Your task to perform on an android device: Clear the shopping cart on bestbuy.com. Add "usb-c" to the cart on bestbuy.com, then select checkout. Image 0: 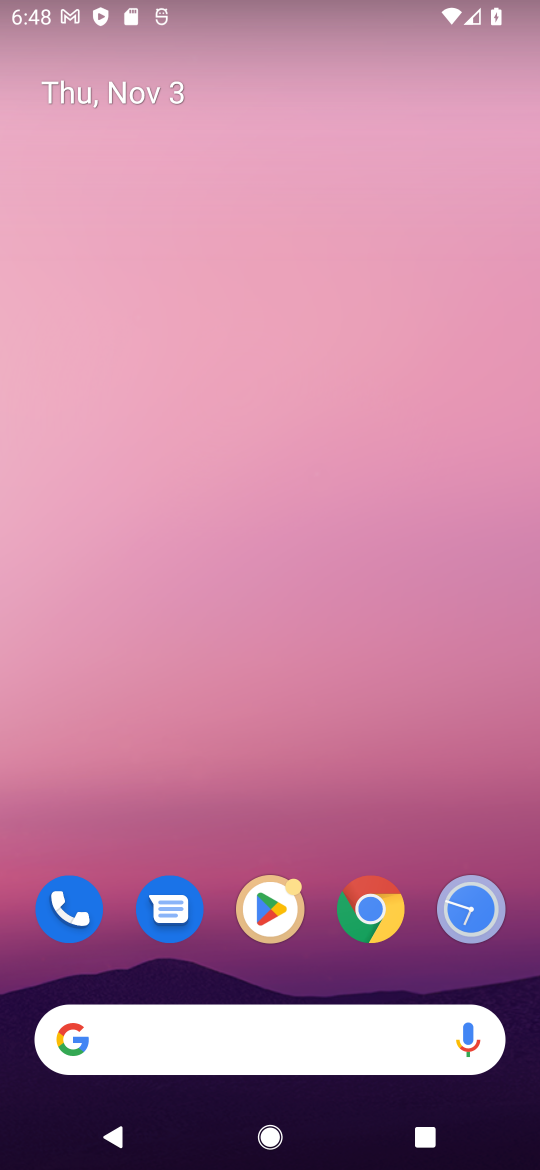
Step 0: drag from (409, 991) to (410, 37)
Your task to perform on an android device: Clear the shopping cart on bestbuy.com. Add "usb-c" to the cart on bestbuy.com, then select checkout. Image 1: 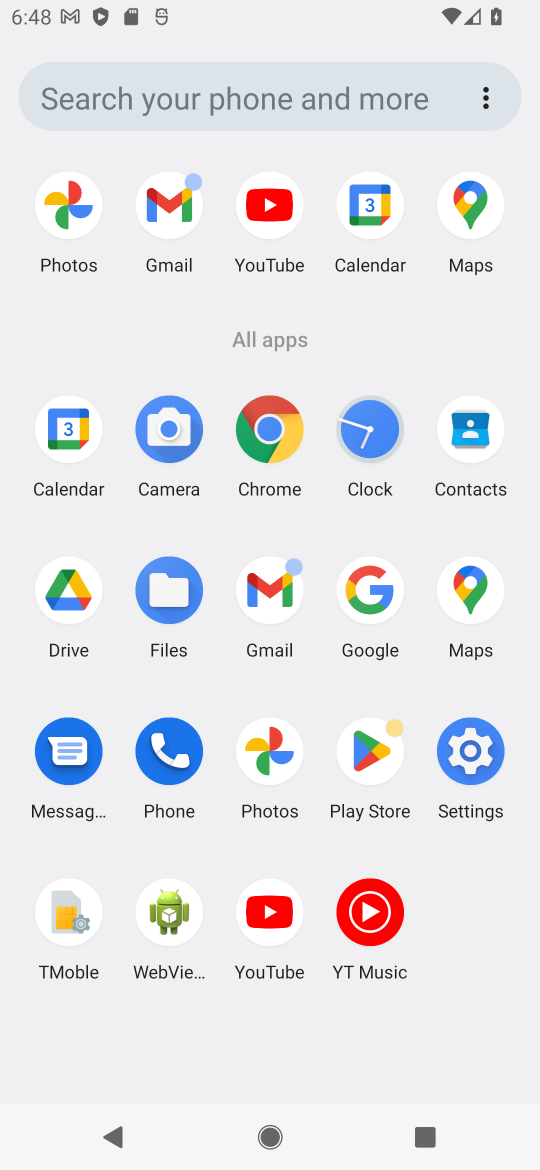
Step 1: click (380, 585)
Your task to perform on an android device: Clear the shopping cart on bestbuy.com. Add "usb-c" to the cart on bestbuy.com, then select checkout. Image 2: 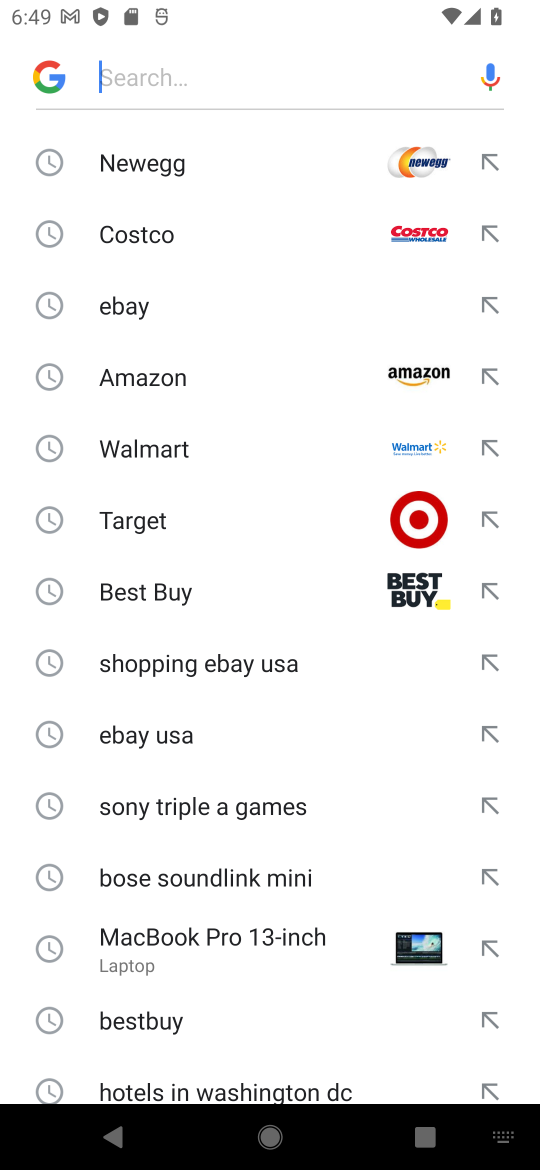
Step 2: click (284, 72)
Your task to perform on an android device: Clear the shopping cart on bestbuy.com. Add "usb-c" to the cart on bestbuy.com, then select checkout. Image 3: 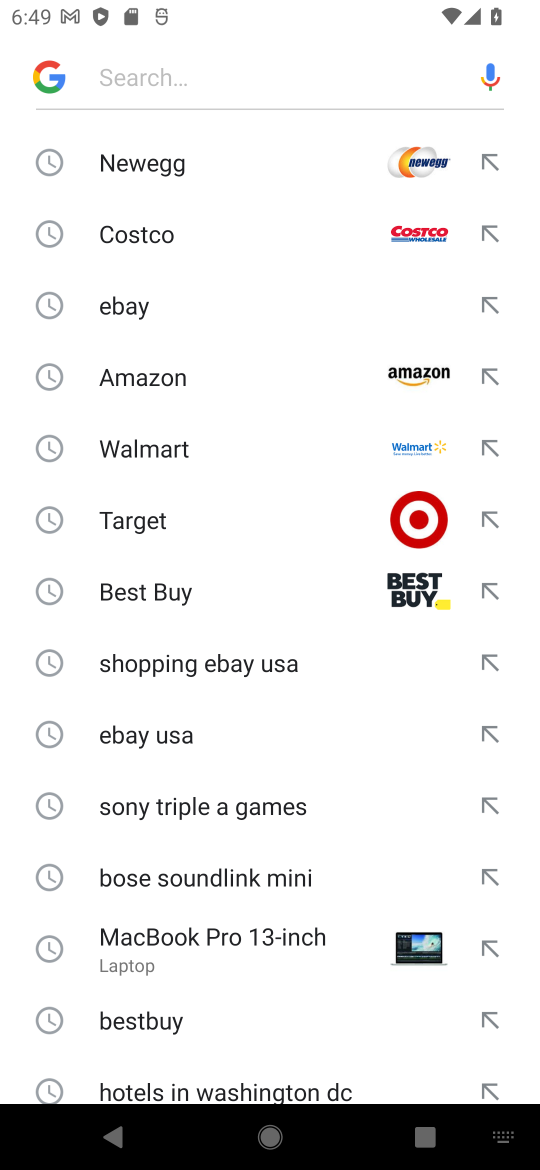
Step 3: type "bestbuy "
Your task to perform on an android device: Clear the shopping cart on bestbuy.com. Add "usb-c" to the cart on bestbuy.com, then select checkout. Image 4: 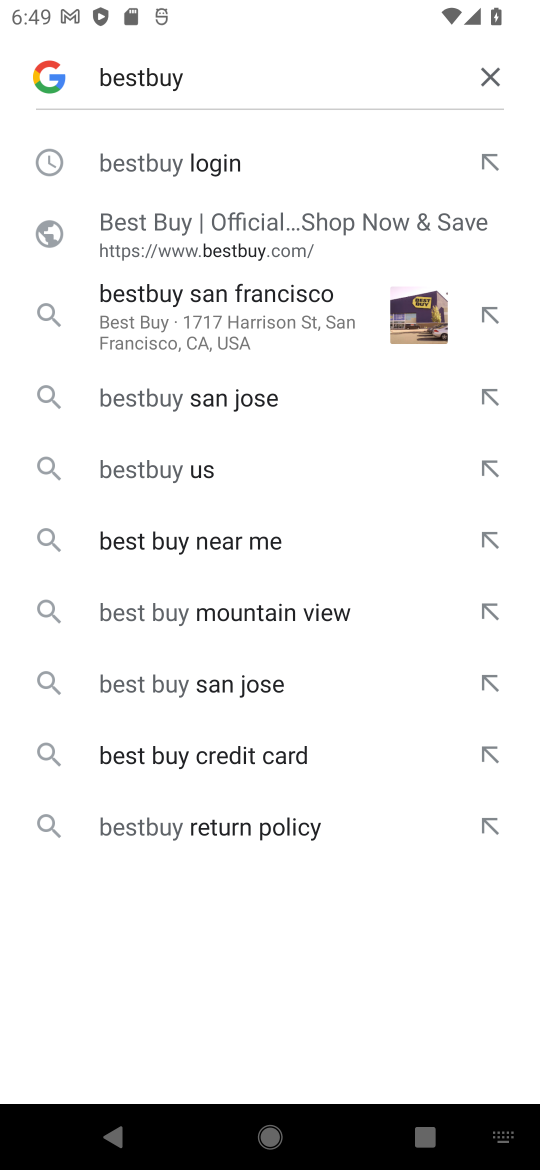
Step 4: click (176, 458)
Your task to perform on an android device: Clear the shopping cart on bestbuy.com. Add "usb-c" to the cart on bestbuy.com, then select checkout. Image 5: 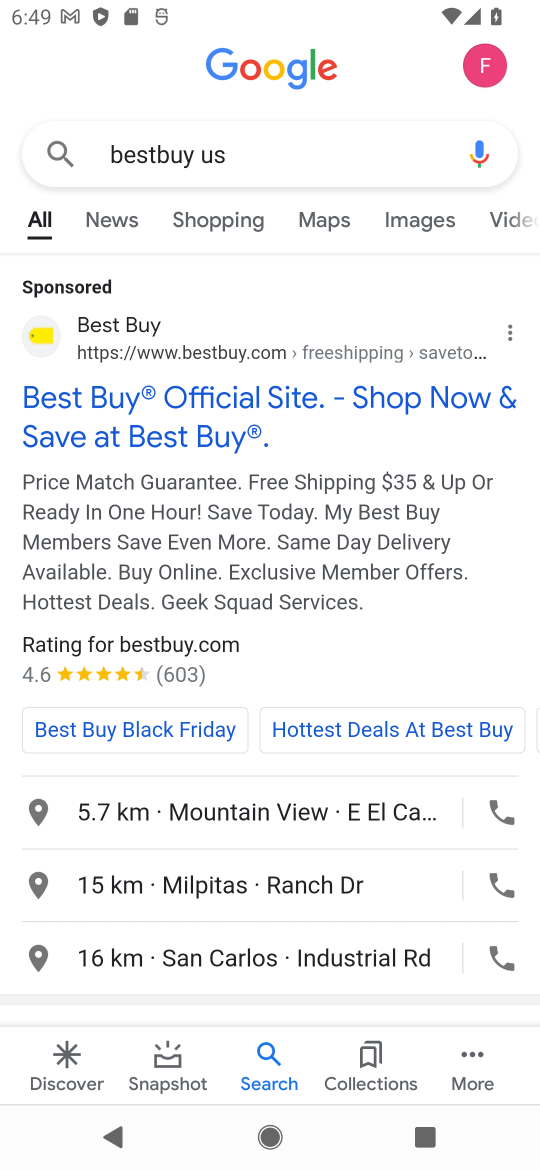
Step 5: click (42, 334)
Your task to perform on an android device: Clear the shopping cart on bestbuy.com. Add "usb-c" to the cart on bestbuy.com, then select checkout. Image 6: 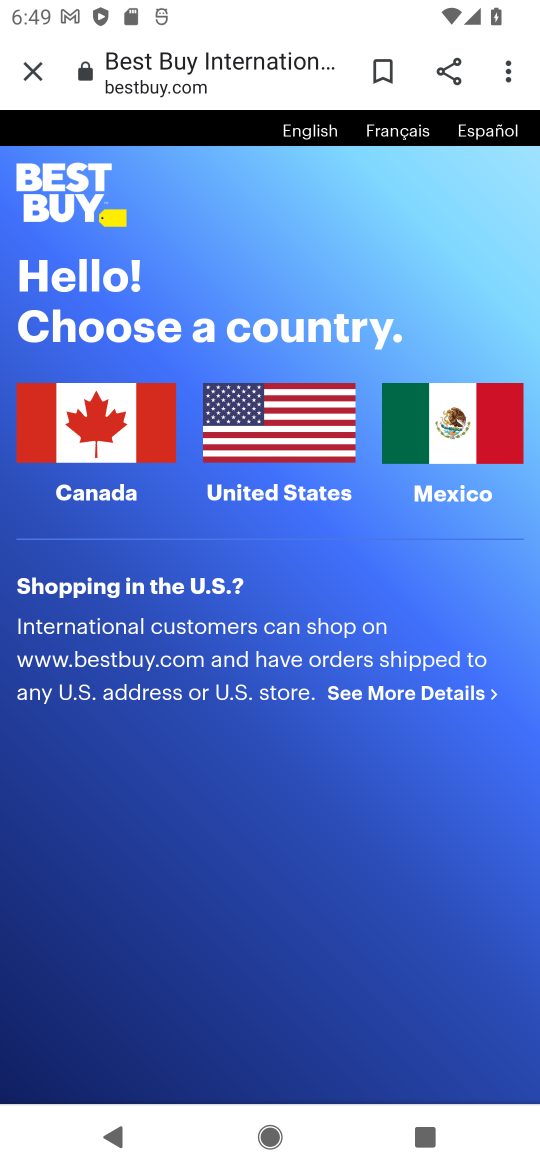
Step 6: click (255, 400)
Your task to perform on an android device: Clear the shopping cart on bestbuy.com. Add "usb-c" to the cart on bestbuy.com, then select checkout. Image 7: 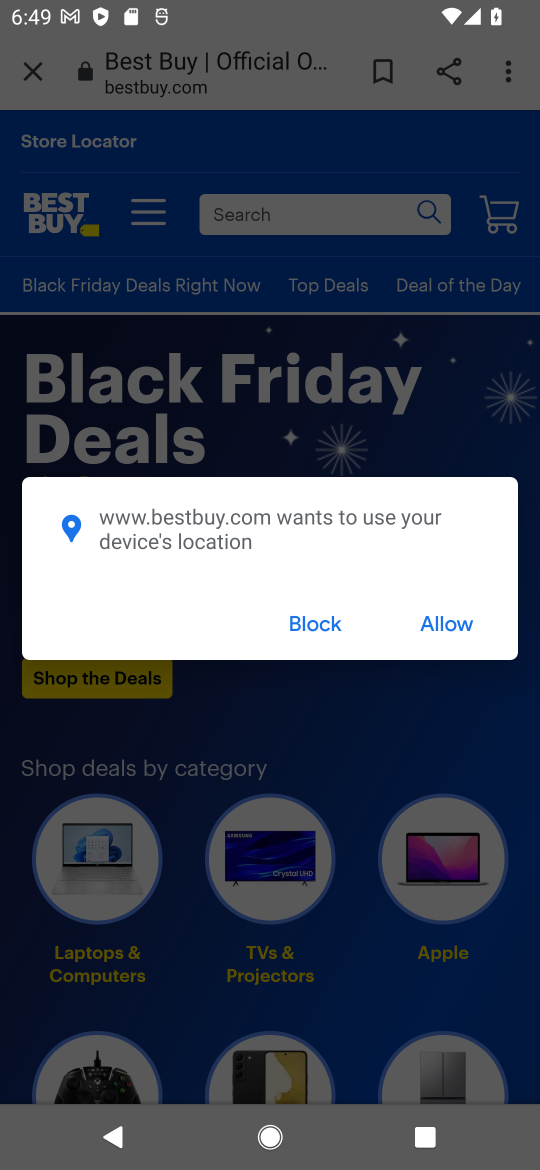
Step 7: click (443, 632)
Your task to perform on an android device: Clear the shopping cart on bestbuy.com. Add "usb-c" to the cart on bestbuy.com, then select checkout. Image 8: 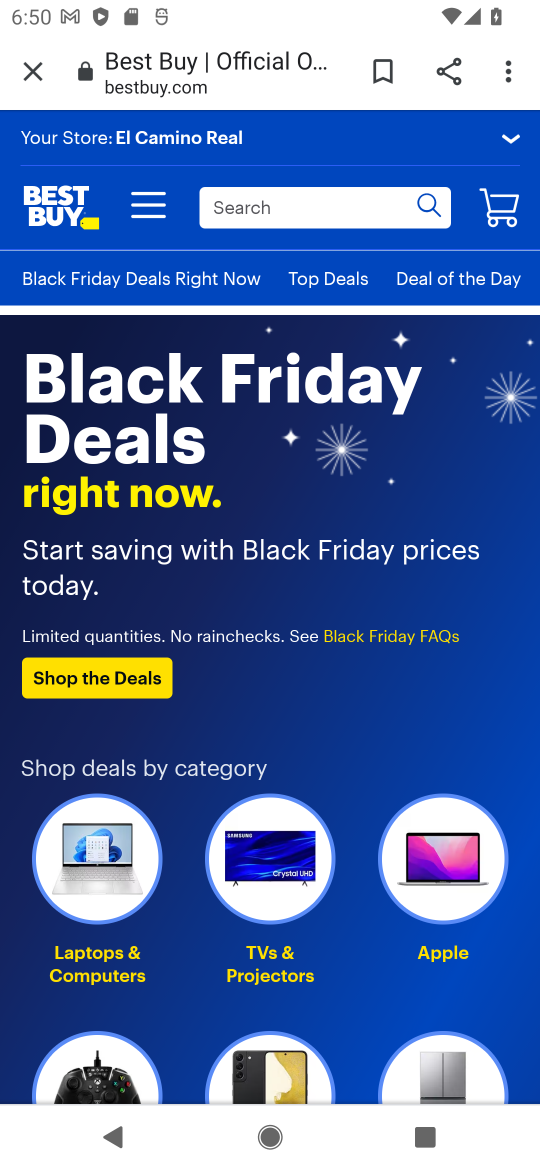
Step 8: click (300, 204)
Your task to perform on an android device: Clear the shopping cart on bestbuy.com. Add "usb-c" to the cart on bestbuy.com, then select checkout. Image 9: 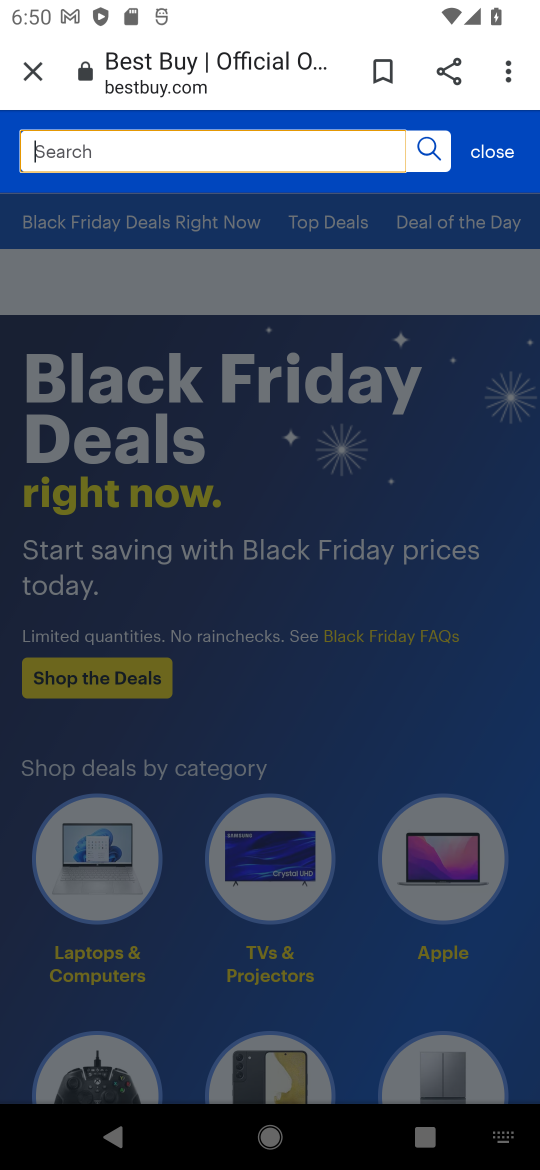
Step 9: type "usb-c "
Your task to perform on an android device: Clear the shopping cart on bestbuy.com. Add "usb-c" to the cart on bestbuy.com, then select checkout. Image 10: 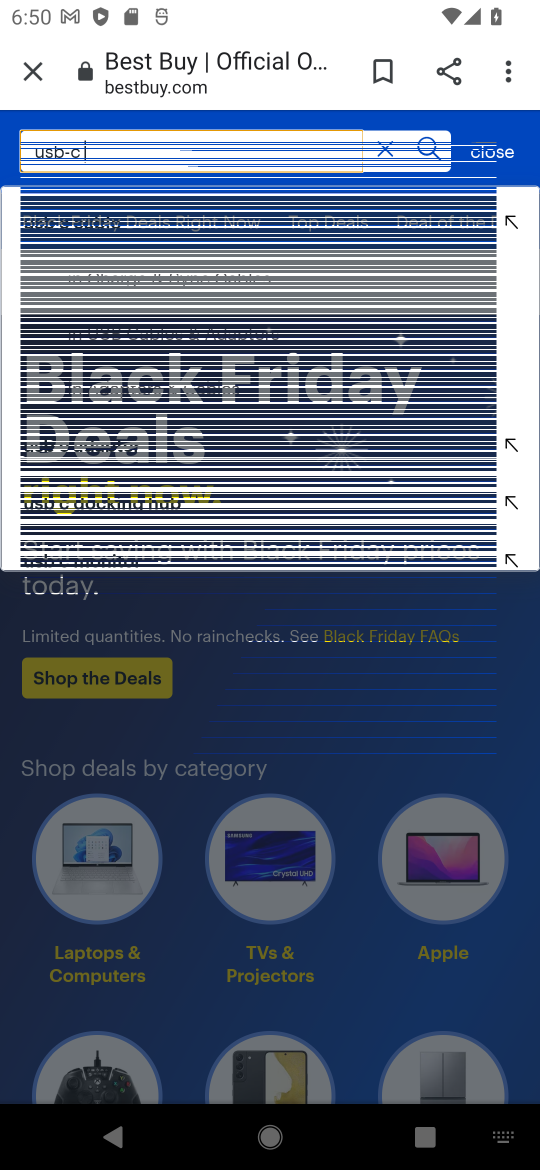
Step 10: drag from (176, 441) to (219, 214)
Your task to perform on an android device: Clear the shopping cart on bestbuy.com. Add "usb-c" to the cart on bestbuy.com, then select checkout. Image 11: 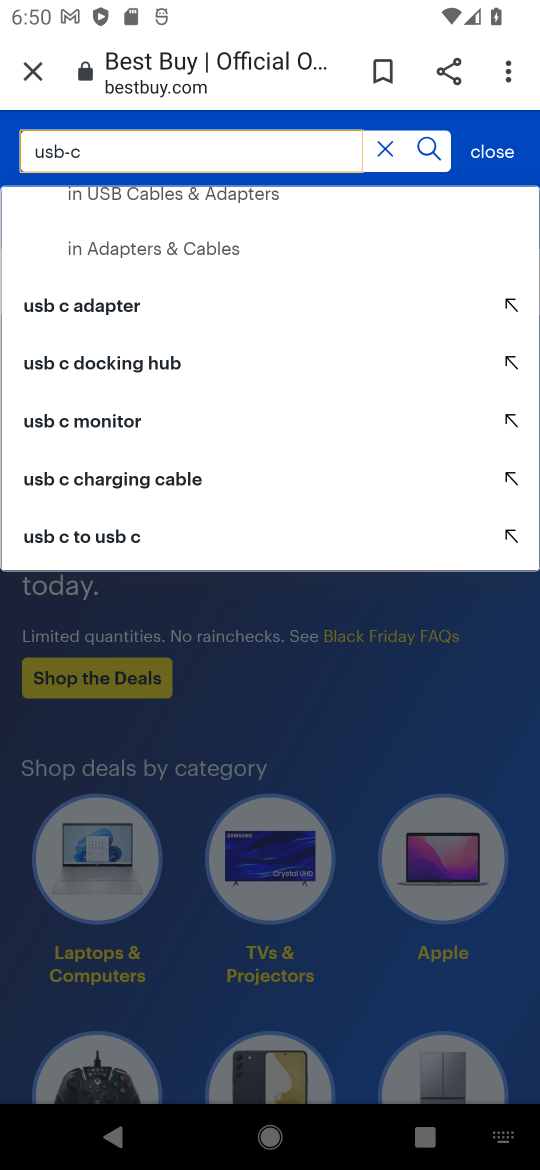
Step 11: click (115, 537)
Your task to perform on an android device: Clear the shopping cart on bestbuy.com. Add "usb-c" to the cart on bestbuy.com, then select checkout. Image 12: 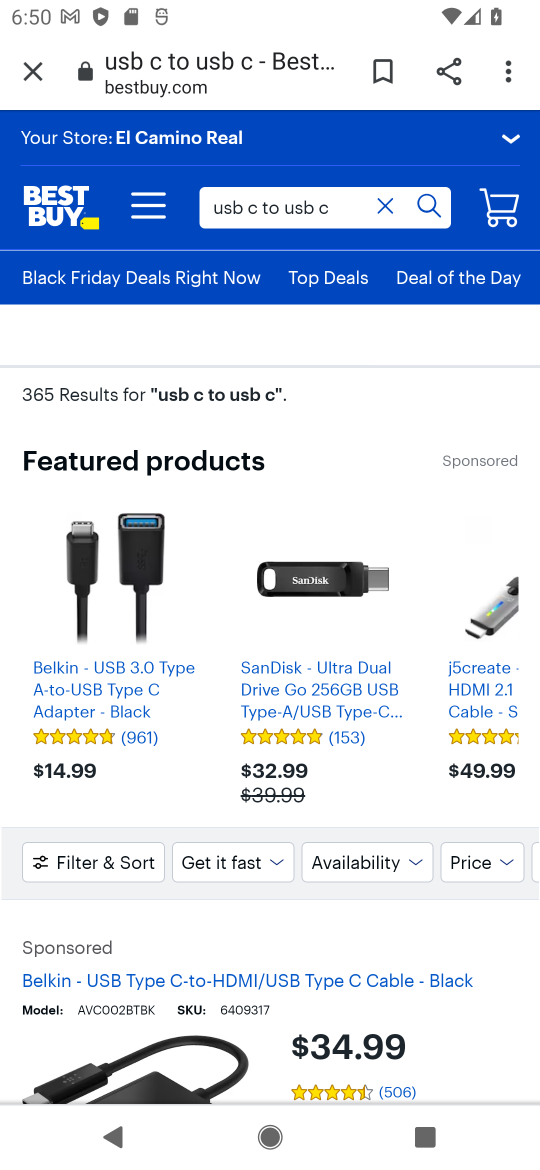
Step 12: click (84, 597)
Your task to perform on an android device: Clear the shopping cart on bestbuy.com. Add "usb-c" to the cart on bestbuy.com, then select checkout. Image 13: 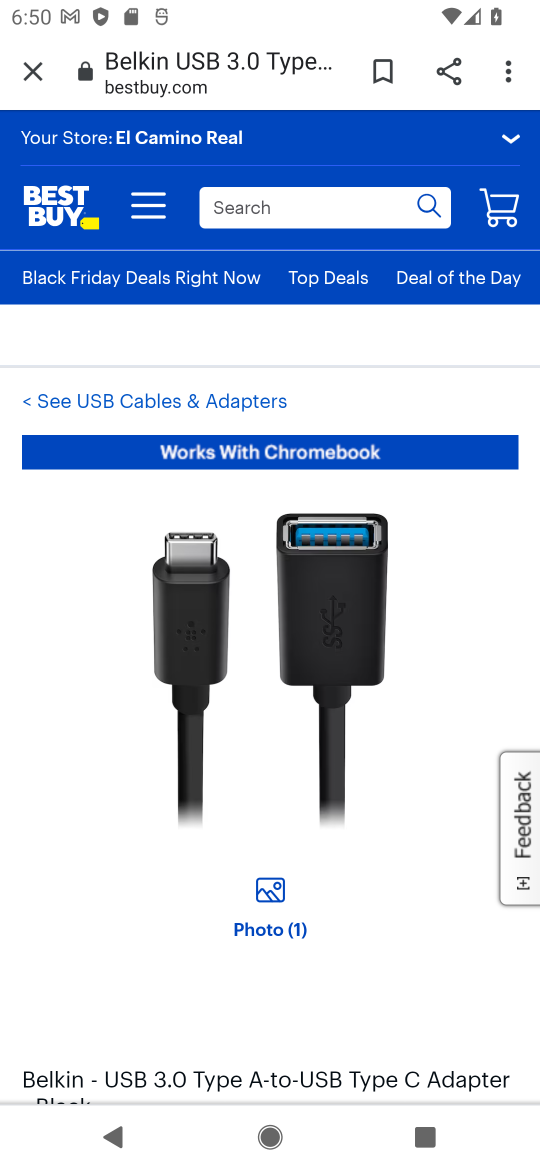
Step 13: drag from (253, 980) to (256, 315)
Your task to perform on an android device: Clear the shopping cart on bestbuy.com. Add "usb-c" to the cart on bestbuy.com, then select checkout. Image 14: 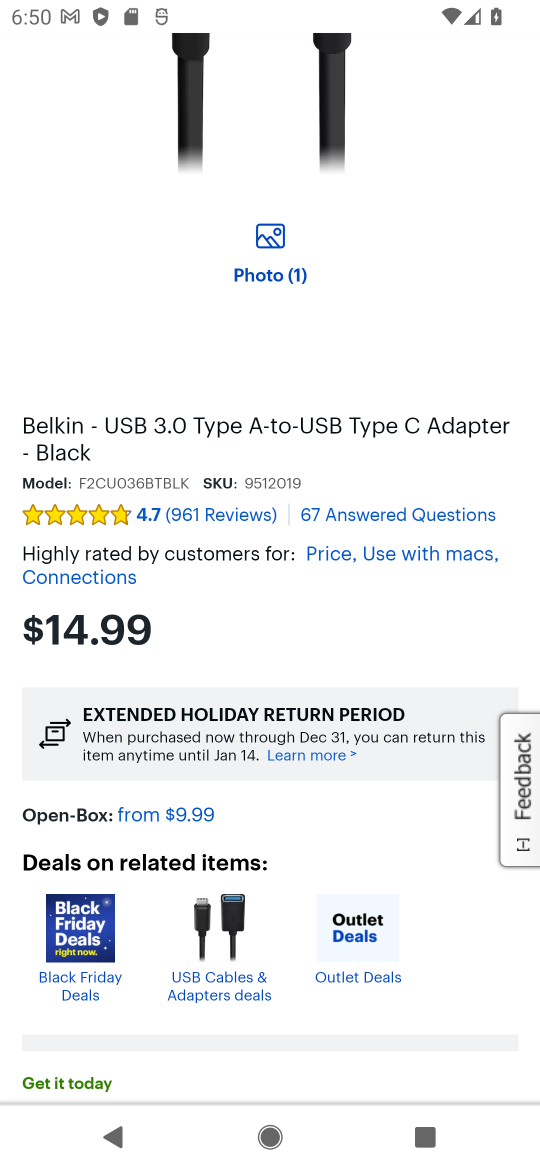
Step 14: drag from (326, 217) to (301, 381)
Your task to perform on an android device: Clear the shopping cart on bestbuy.com. Add "usb-c" to the cart on bestbuy.com, then select checkout. Image 15: 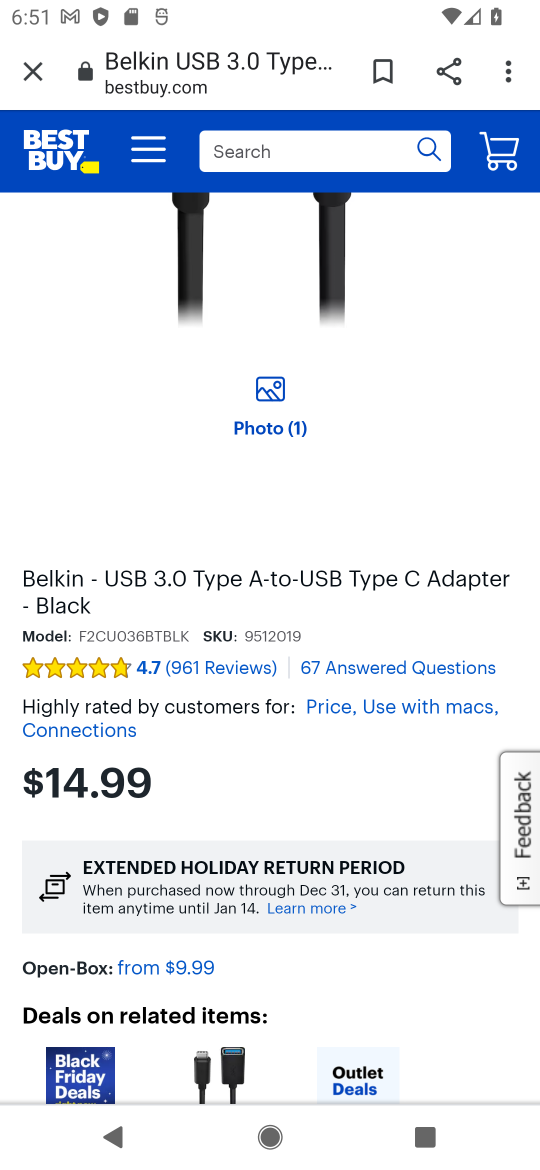
Step 15: click (323, 143)
Your task to perform on an android device: Clear the shopping cart on bestbuy.com. Add "usb-c" to the cart on bestbuy.com, then select checkout. Image 16: 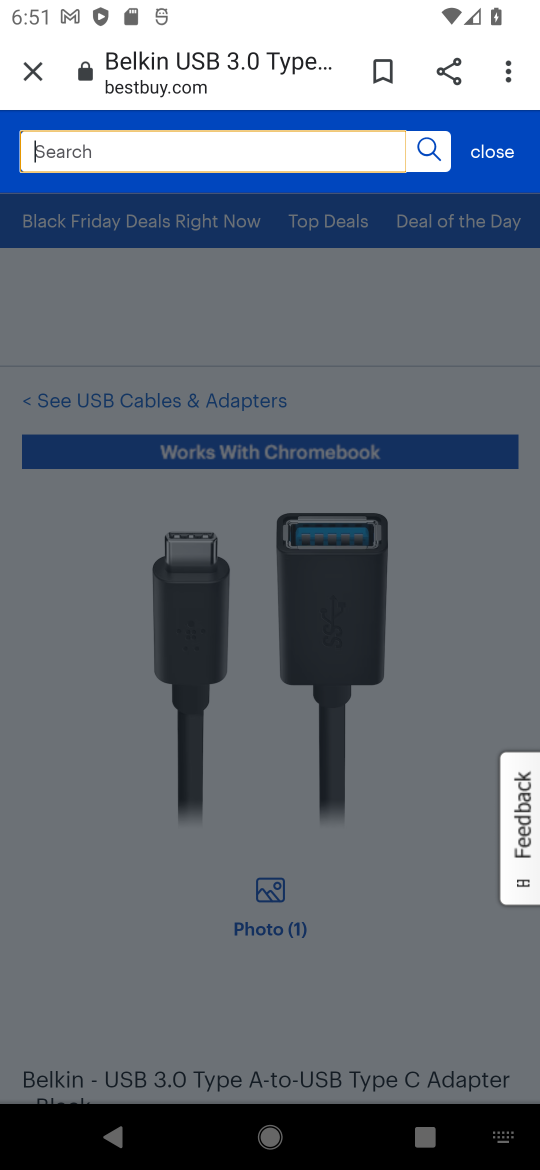
Step 16: click (224, 140)
Your task to perform on an android device: Clear the shopping cart on bestbuy.com. Add "usb-c" to the cart on bestbuy.com, then select checkout. Image 17: 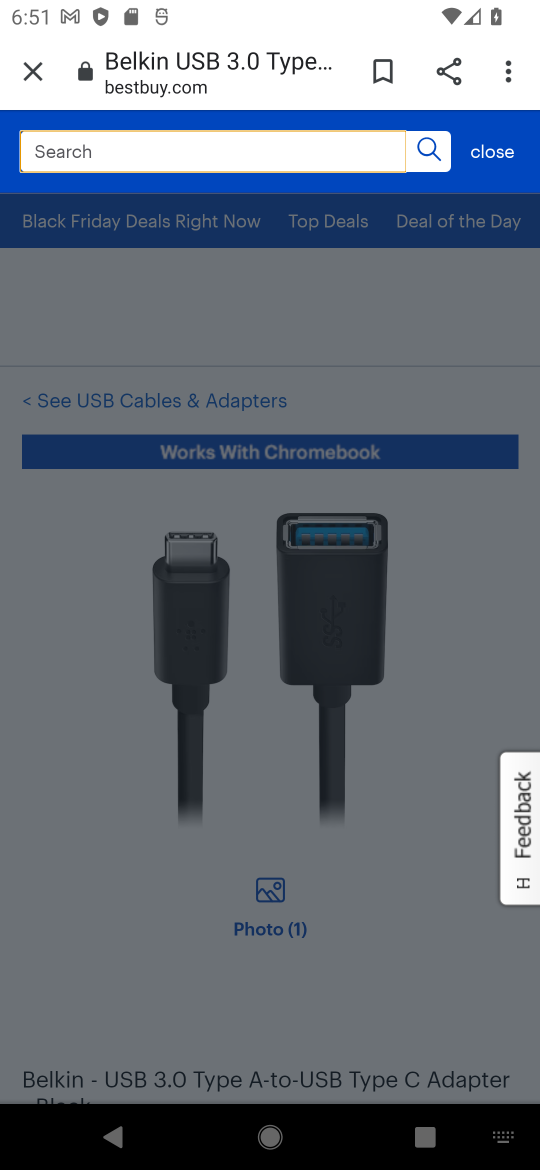
Step 17: type "usb-c "
Your task to perform on an android device: Clear the shopping cart on bestbuy.com. Add "usb-c" to the cart on bestbuy.com, then select checkout. Image 18: 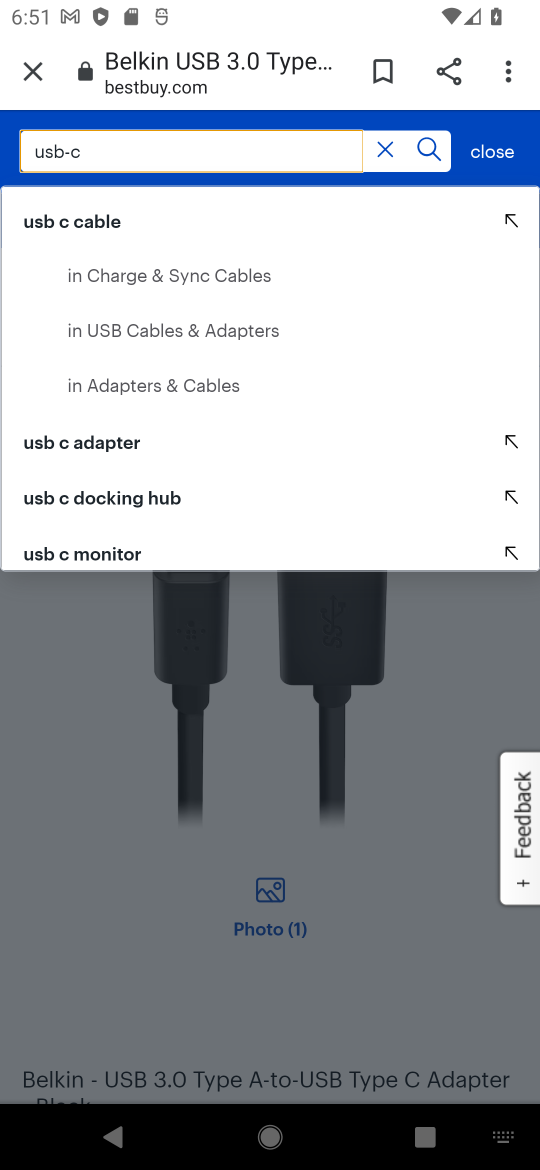
Step 18: click (140, 338)
Your task to perform on an android device: Clear the shopping cart on bestbuy.com. Add "usb-c" to the cart on bestbuy.com, then select checkout. Image 19: 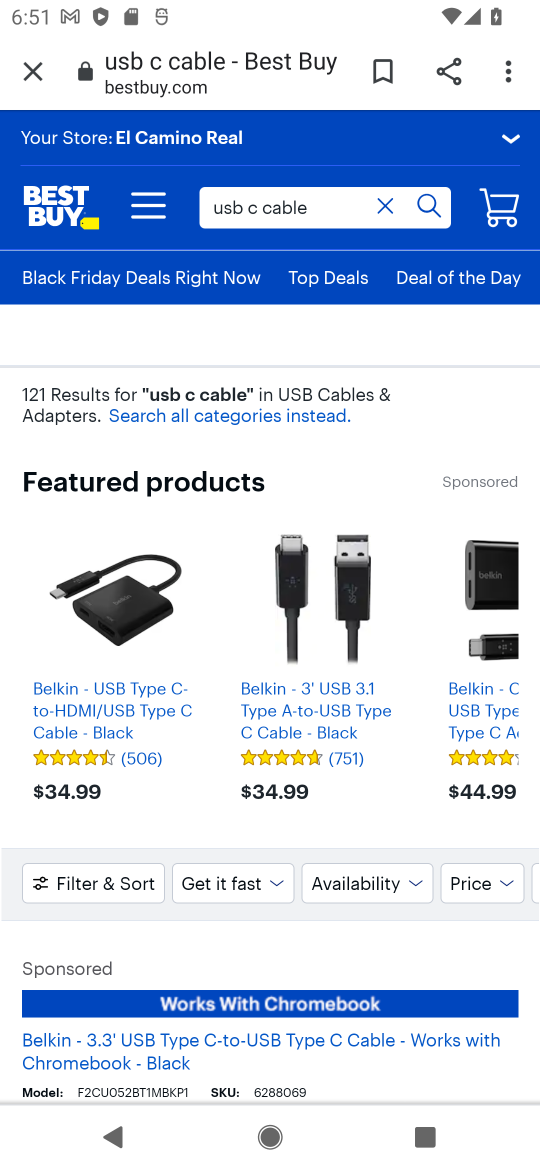
Step 19: click (143, 586)
Your task to perform on an android device: Clear the shopping cart on bestbuy.com. Add "usb-c" to the cart on bestbuy.com, then select checkout. Image 20: 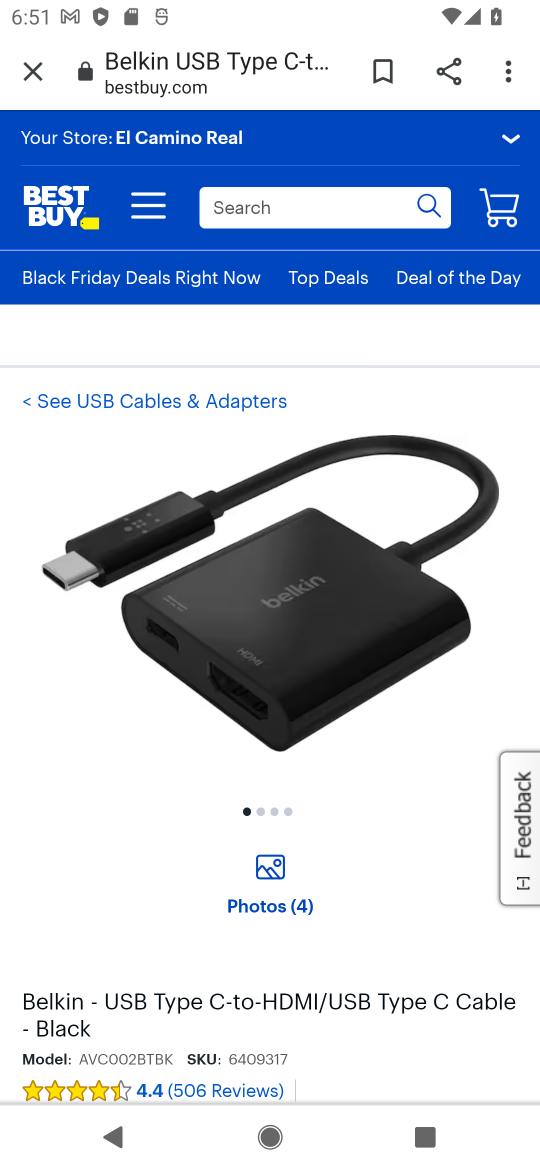
Step 20: drag from (239, 1041) to (275, 385)
Your task to perform on an android device: Clear the shopping cart on bestbuy.com. Add "usb-c" to the cart on bestbuy.com, then select checkout. Image 21: 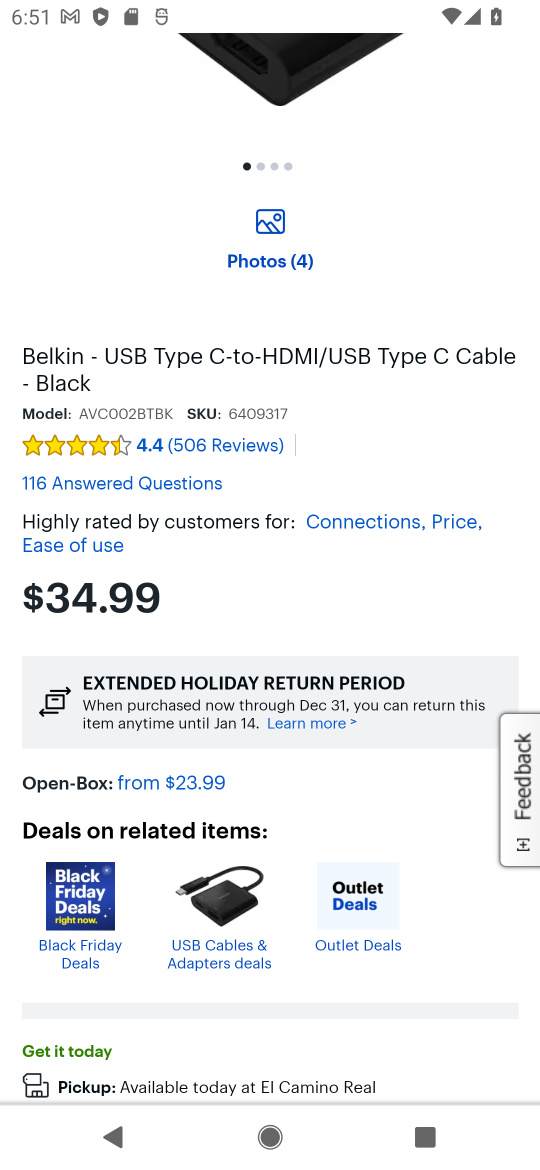
Step 21: drag from (253, 858) to (313, 218)
Your task to perform on an android device: Clear the shopping cart on bestbuy.com. Add "usb-c" to the cart on bestbuy.com, then select checkout. Image 22: 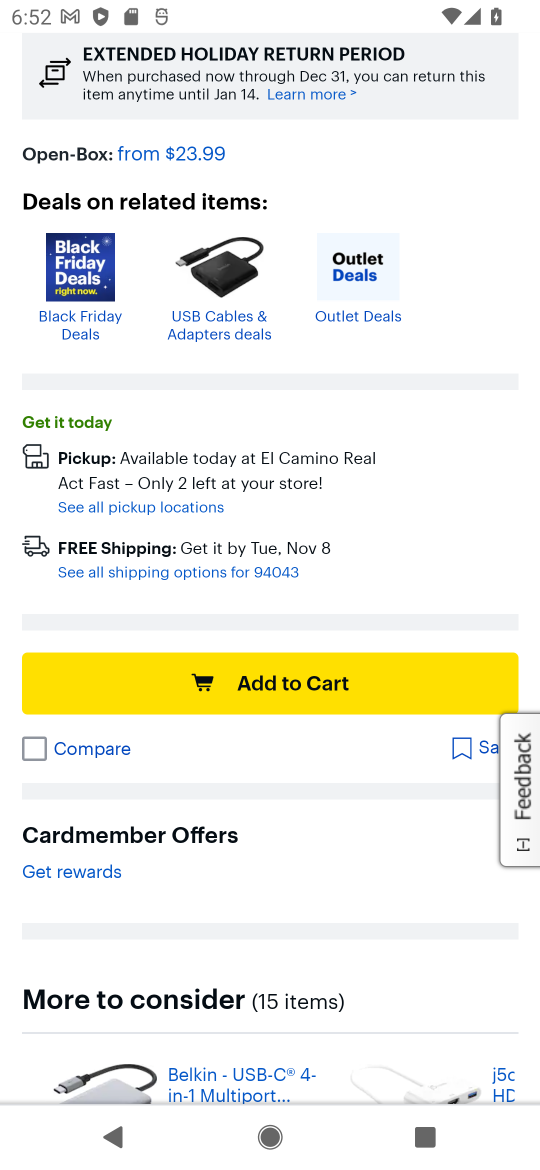
Step 22: click (328, 675)
Your task to perform on an android device: Clear the shopping cart on bestbuy.com. Add "usb-c" to the cart on bestbuy.com, then select checkout. Image 23: 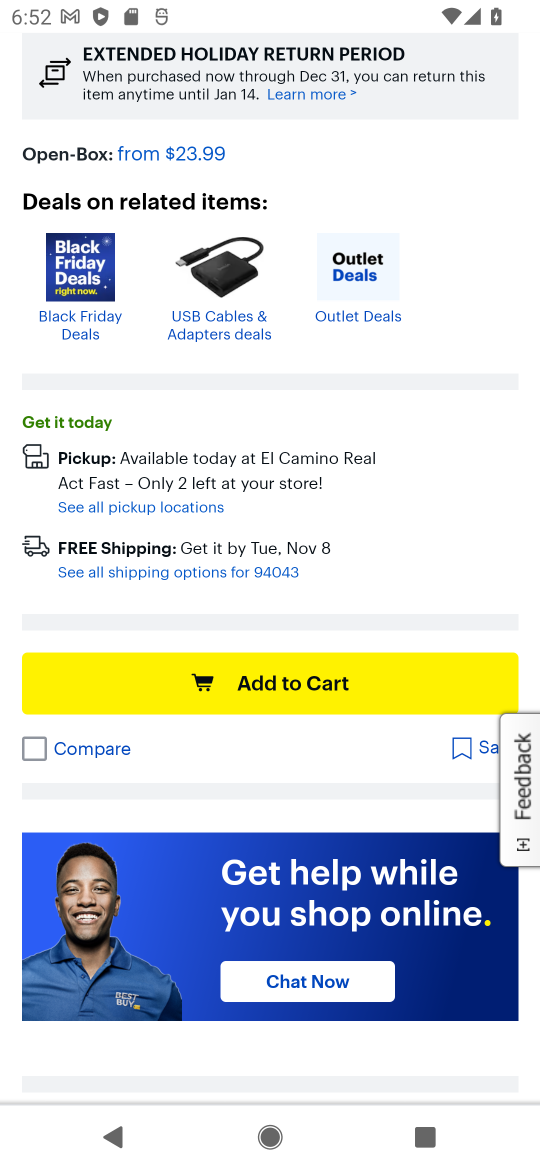
Step 23: task complete